Your task to perform on an android device: check data usage Image 0: 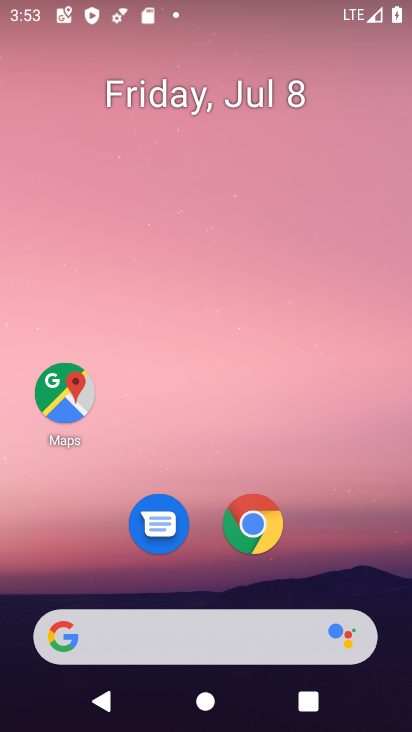
Step 0: drag from (210, 462) to (188, 1)
Your task to perform on an android device: check data usage Image 1: 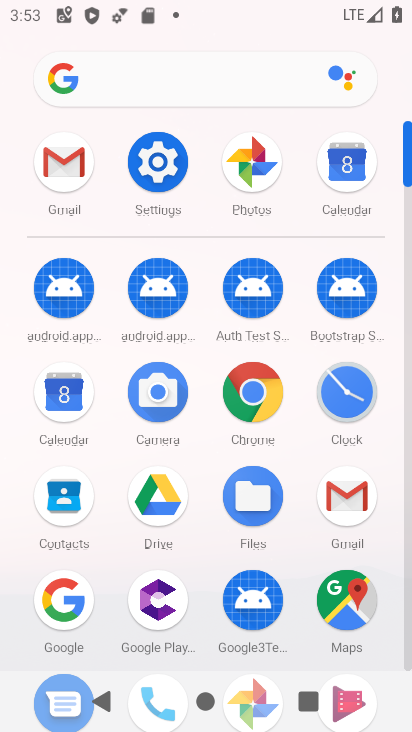
Step 1: click (164, 168)
Your task to perform on an android device: check data usage Image 2: 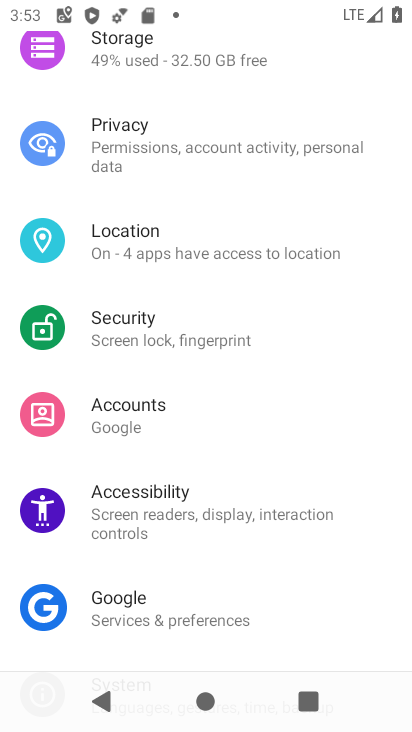
Step 2: drag from (252, 215) to (234, 569)
Your task to perform on an android device: check data usage Image 3: 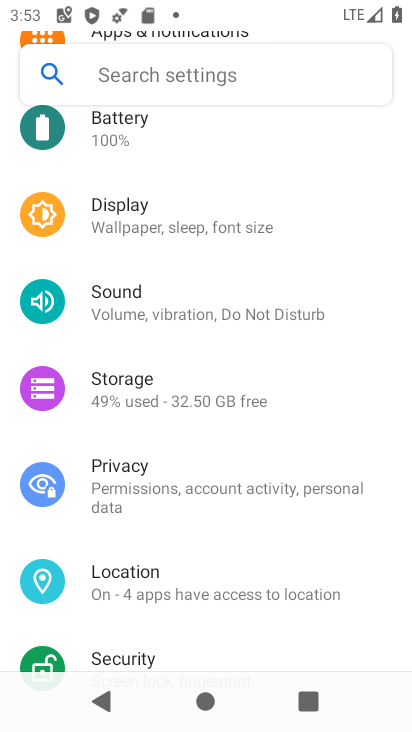
Step 3: drag from (242, 210) to (258, 551)
Your task to perform on an android device: check data usage Image 4: 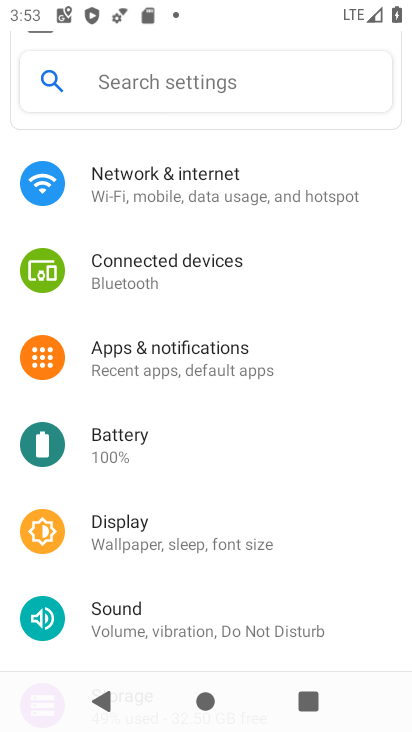
Step 4: click (236, 183)
Your task to perform on an android device: check data usage Image 5: 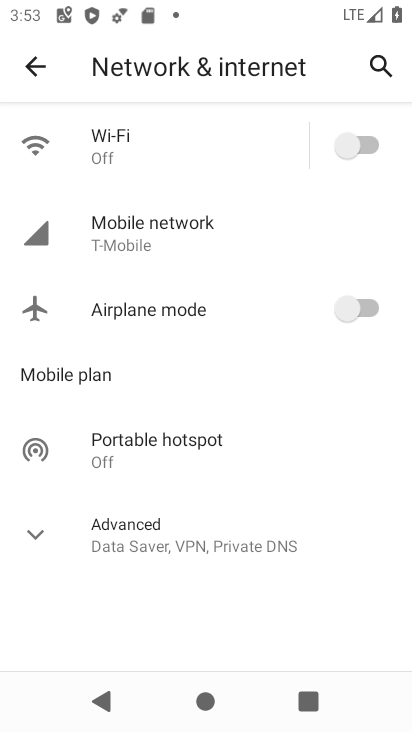
Step 5: click (202, 229)
Your task to perform on an android device: check data usage Image 6: 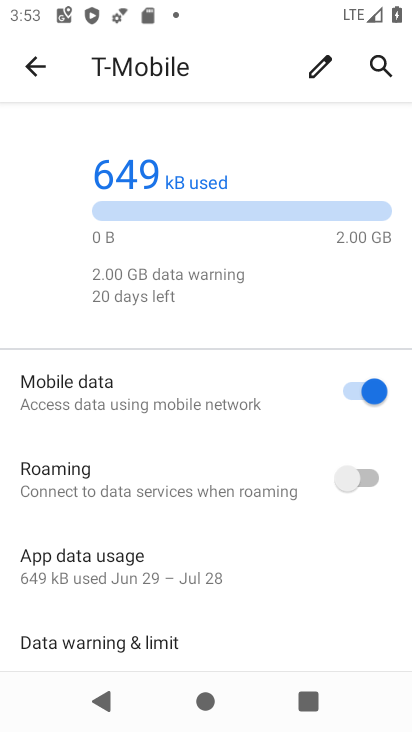
Step 6: task complete